Your task to perform on an android device: check battery use Image 0: 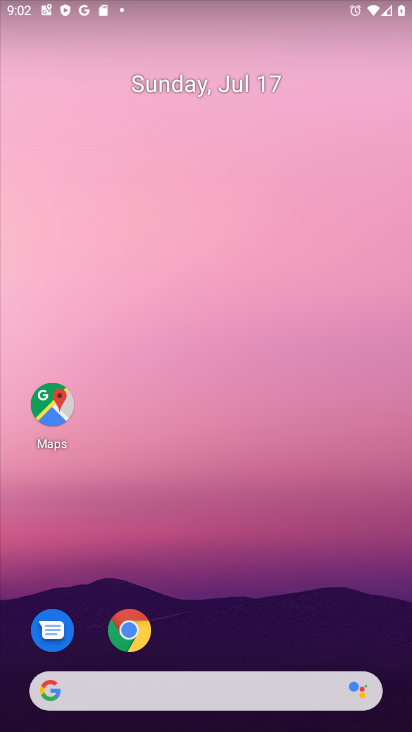
Step 0: drag from (208, 566) to (206, 214)
Your task to perform on an android device: check battery use Image 1: 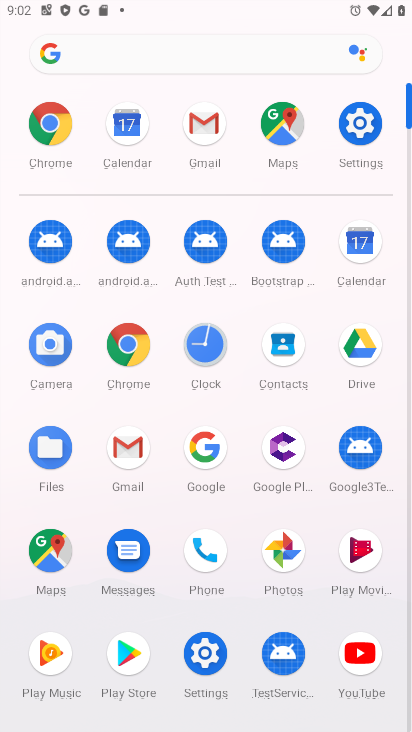
Step 1: click (359, 130)
Your task to perform on an android device: check battery use Image 2: 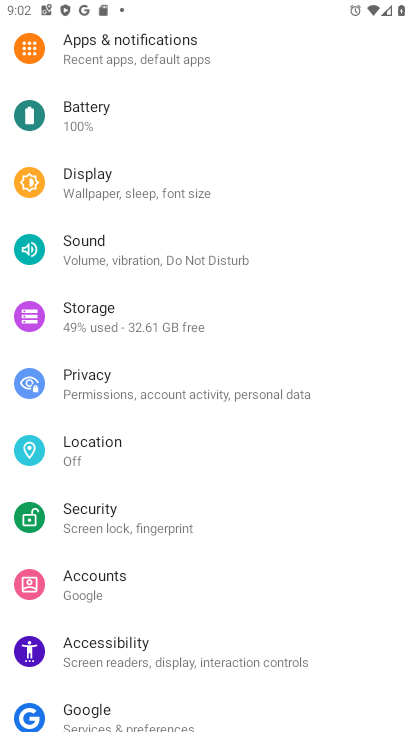
Step 2: click (74, 113)
Your task to perform on an android device: check battery use Image 3: 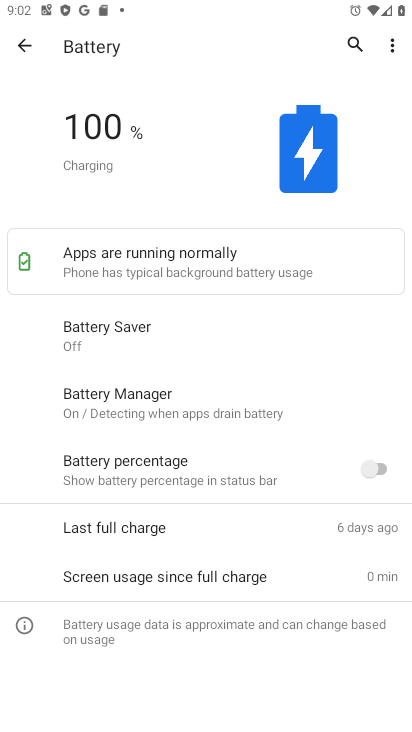
Step 3: task complete